Your task to perform on an android device: toggle airplane mode Image 0: 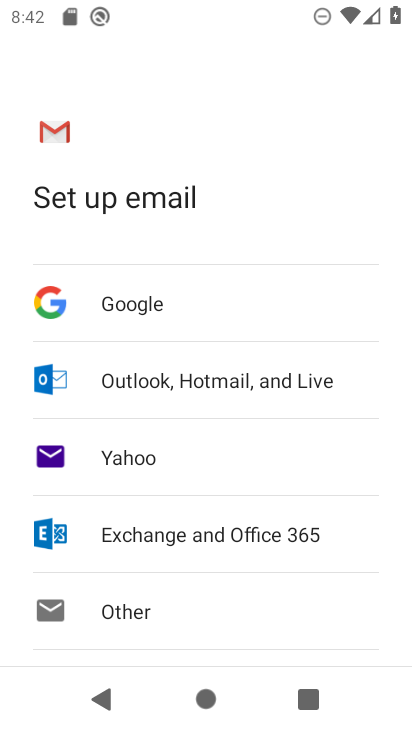
Step 0: press home button
Your task to perform on an android device: toggle airplane mode Image 1: 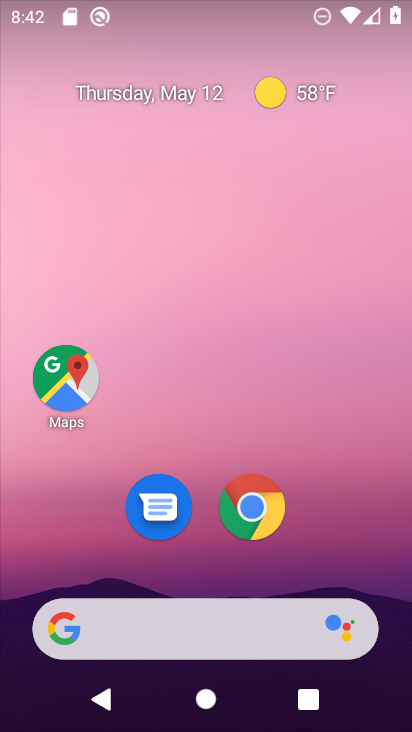
Step 1: drag from (197, 560) to (195, 187)
Your task to perform on an android device: toggle airplane mode Image 2: 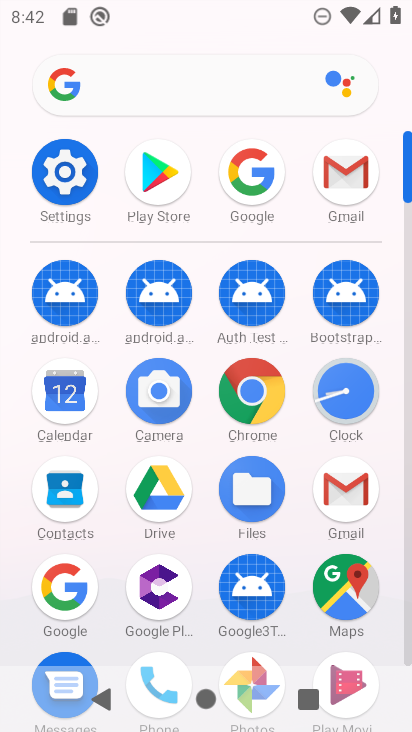
Step 2: click (101, 183)
Your task to perform on an android device: toggle airplane mode Image 3: 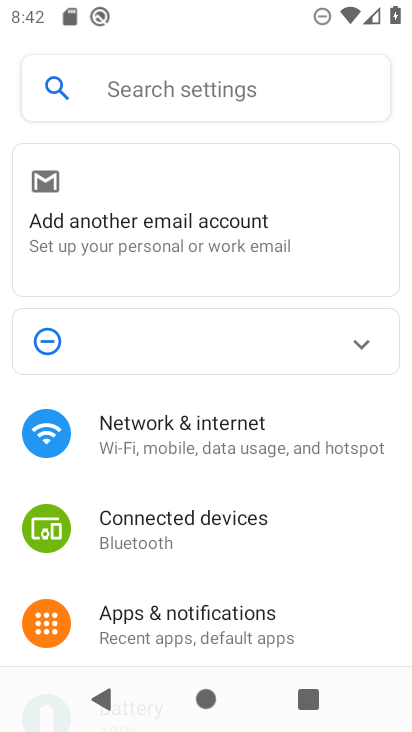
Step 3: drag from (227, 508) to (227, 312)
Your task to perform on an android device: toggle airplane mode Image 4: 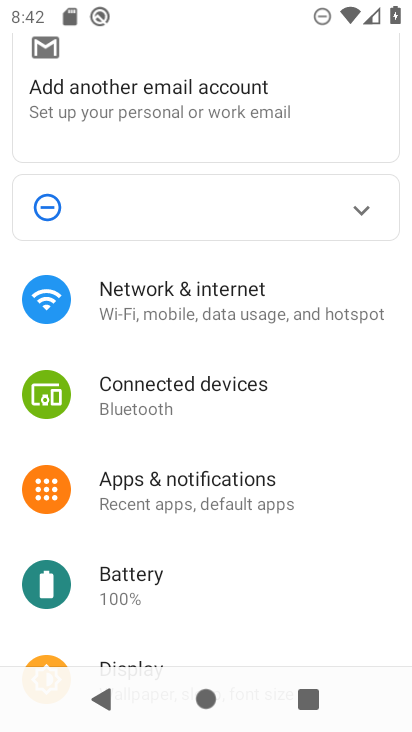
Step 4: click (212, 305)
Your task to perform on an android device: toggle airplane mode Image 5: 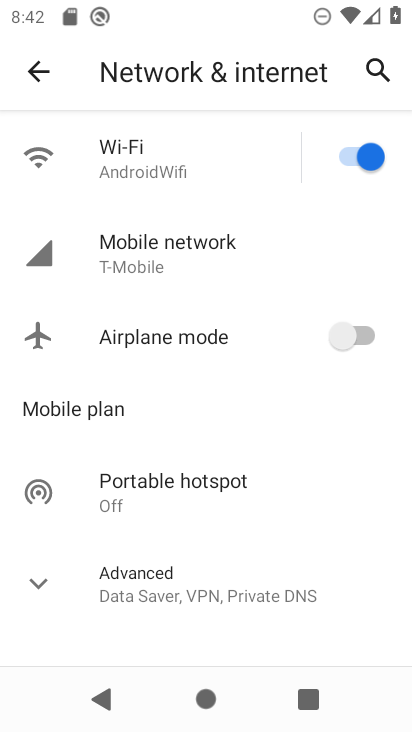
Step 5: click (355, 330)
Your task to perform on an android device: toggle airplane mode Image 6: 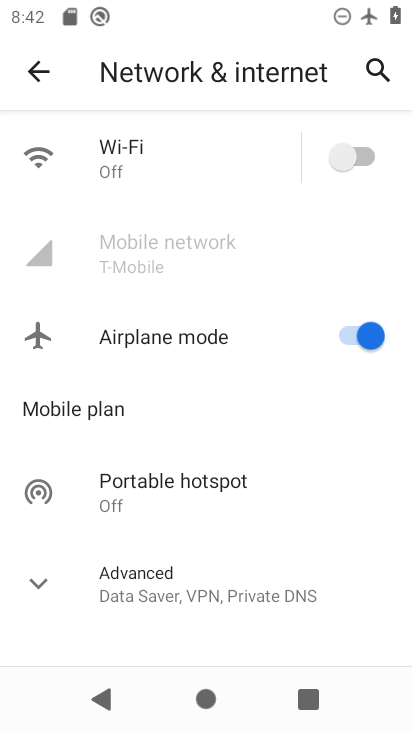
Step 6: task complete